Your task to perform on an android device: Open settings on Google Maps Image 0: 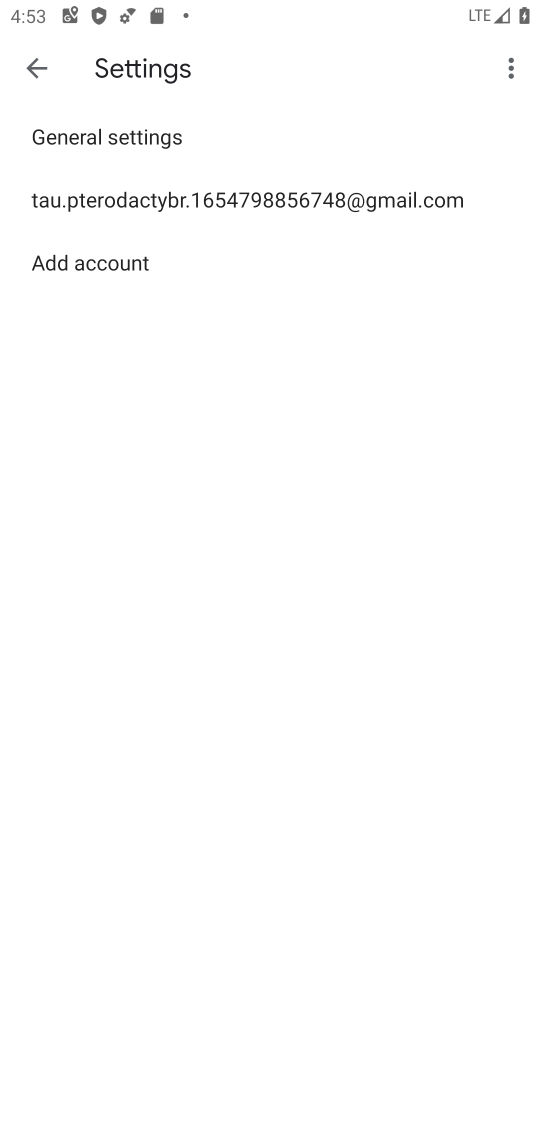
Step 0: press home button
Your task to perform on an android device: Open settings on Google Maps Image 1: 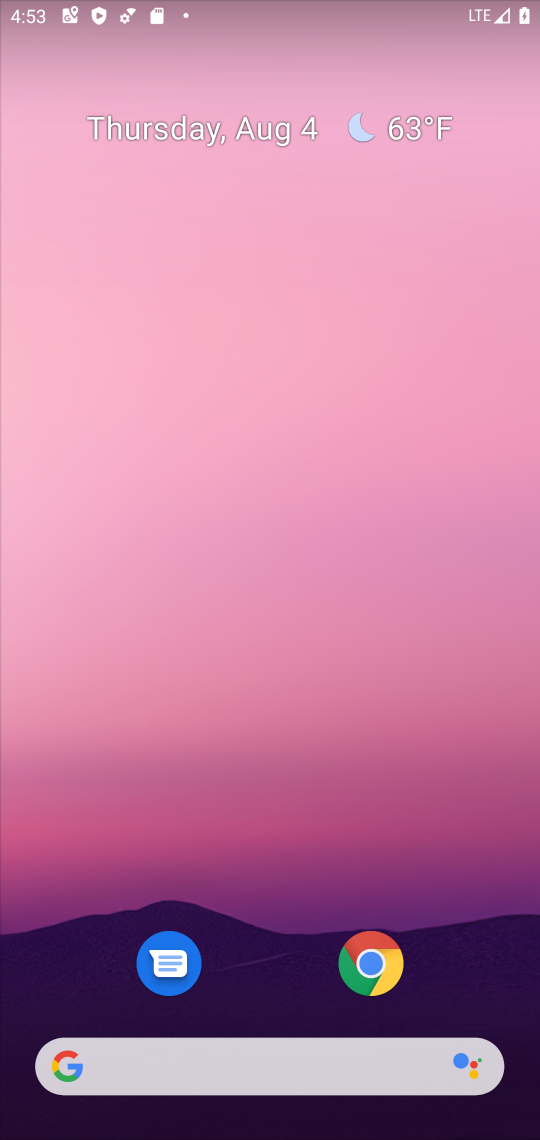
Step 1: drag from (268, 753) to (254, 298)
Your task to perform on an android device: Open settings on Google Maps Image 2: 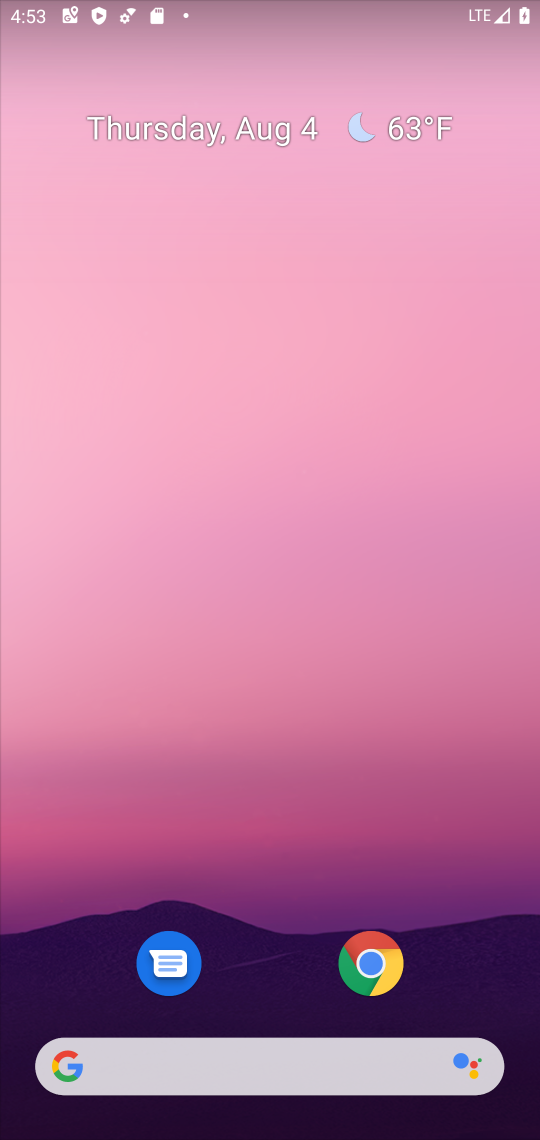
Step 2: drag from (267, 812) to (294, 43)
Your task to perform on an android device: Open settings on Google Maps Image 3: 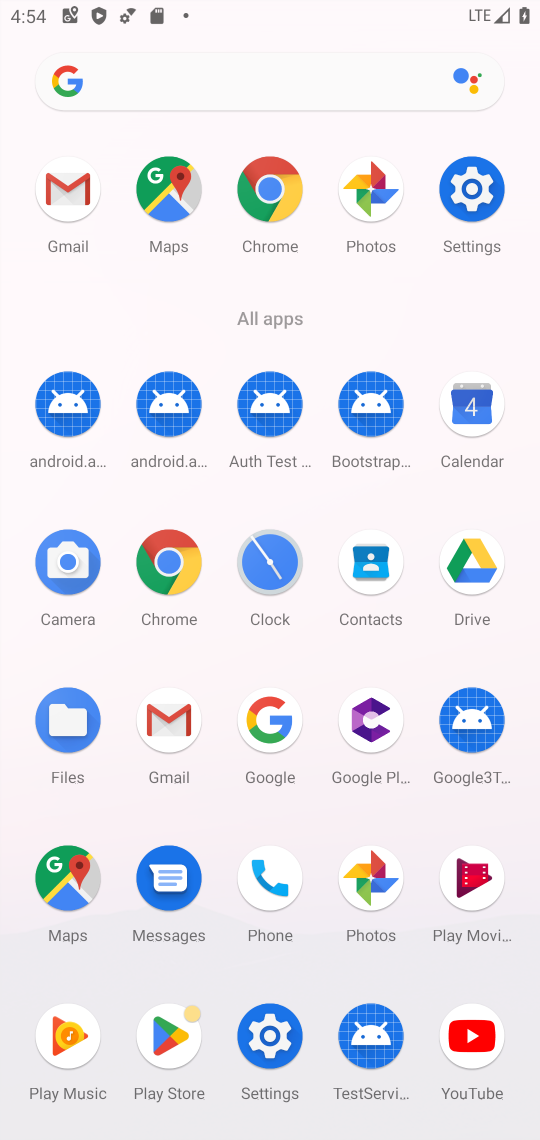
Step 3: click (163, 187)
Your task to perform on an android device: Open settings on Google Maps Image 4: 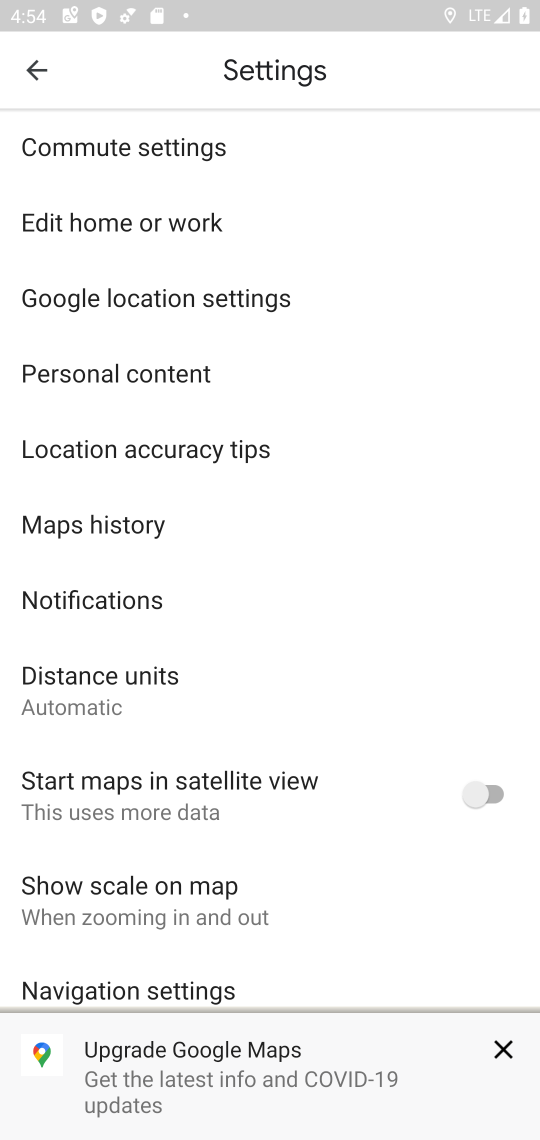
Step 4: task complete